Your task to perform on an android device: install app "Pandora - Music & Podcasts" Image 0: 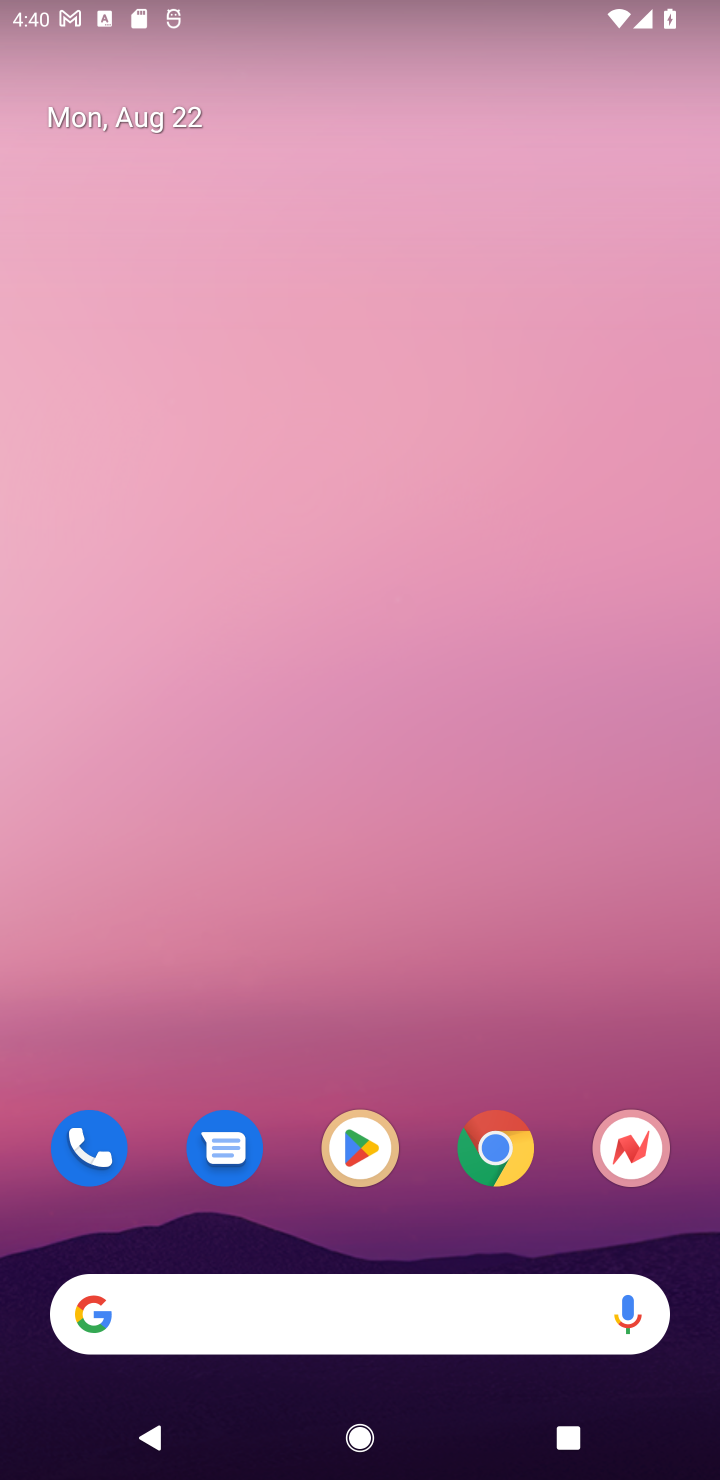
Step 0: click (358, 1150)
Your task to perform on an android device: install app "Pandora - Music & Podcasts" Image 1: 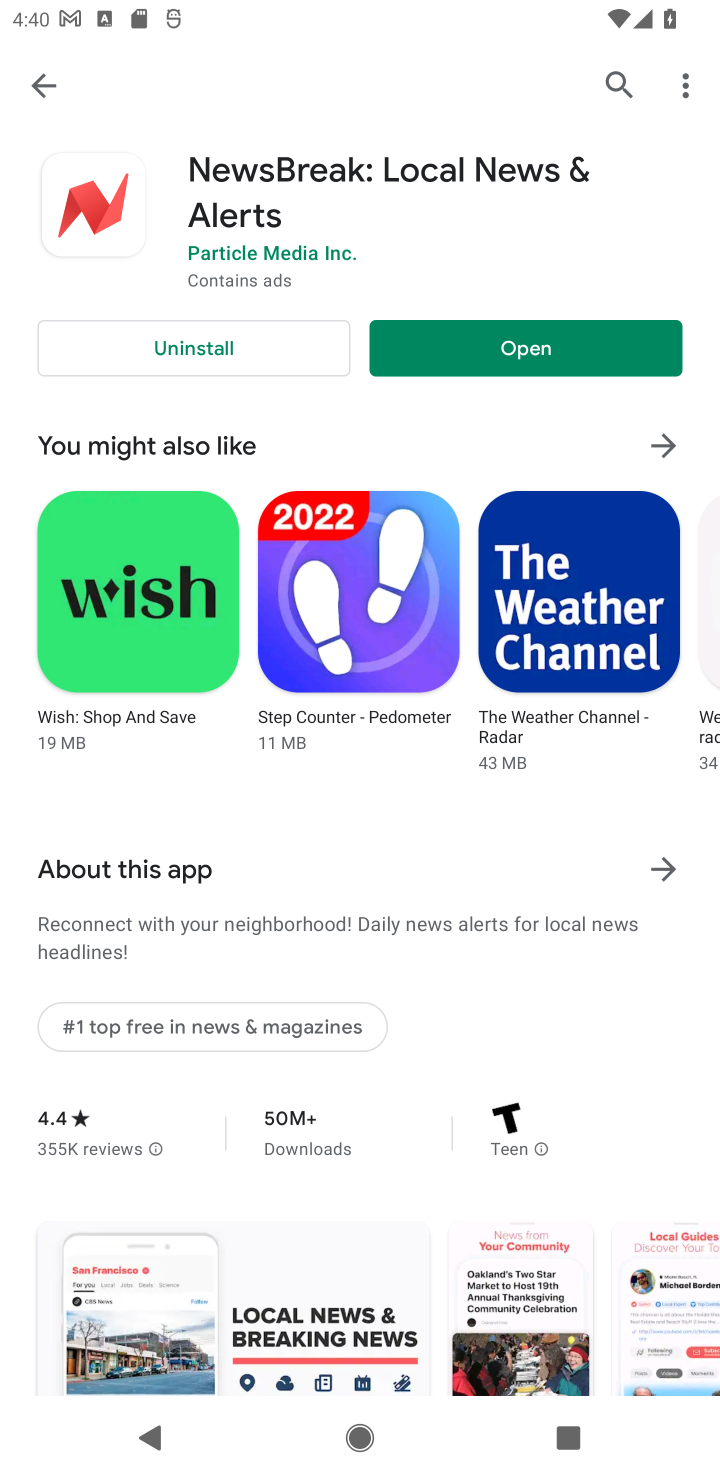
Step 1: click (616, 79)
Your task to perform on an android device: install app "Pandora - Music & Podcasts" Image 2: 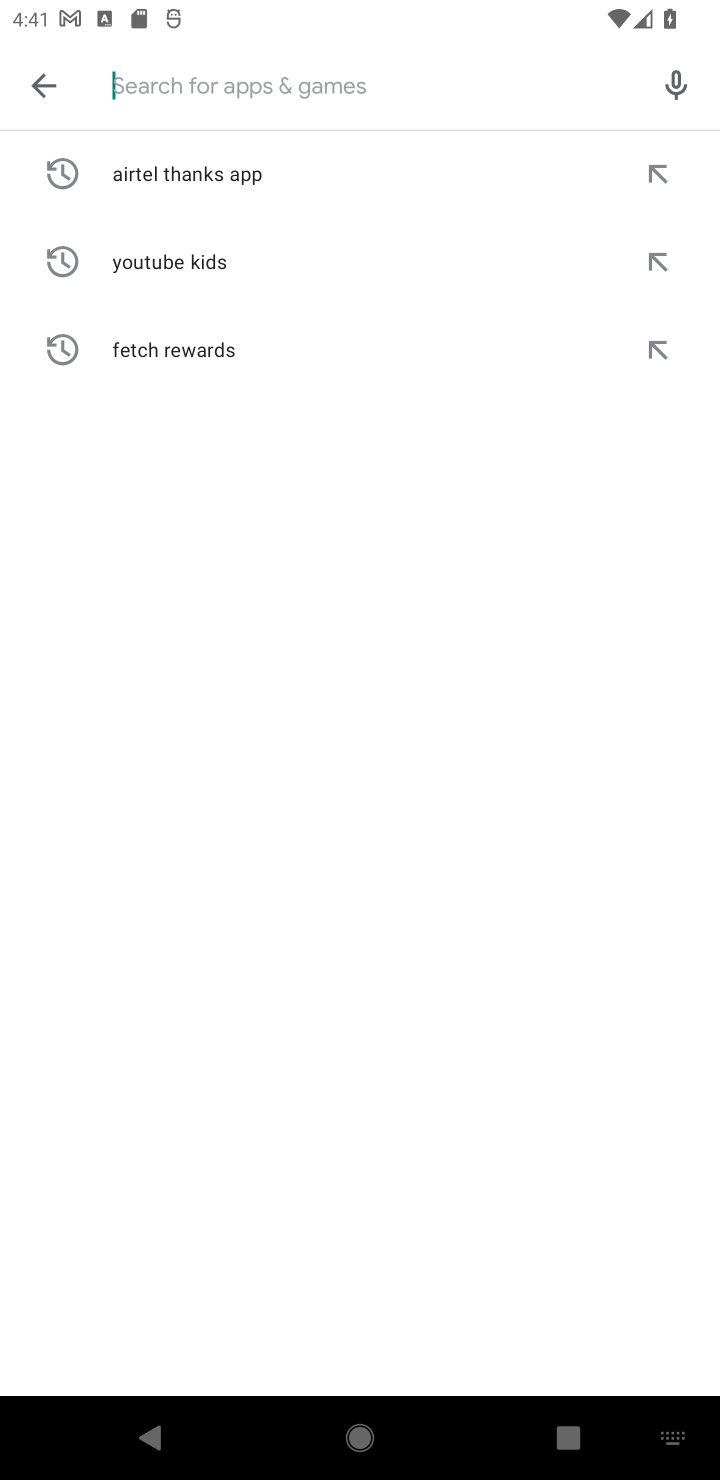
Step 2: type "Pandora - Music & Podcasts"
Your task to perform on an android device: install app "Pandora - Music & Podcasts" Image 3: 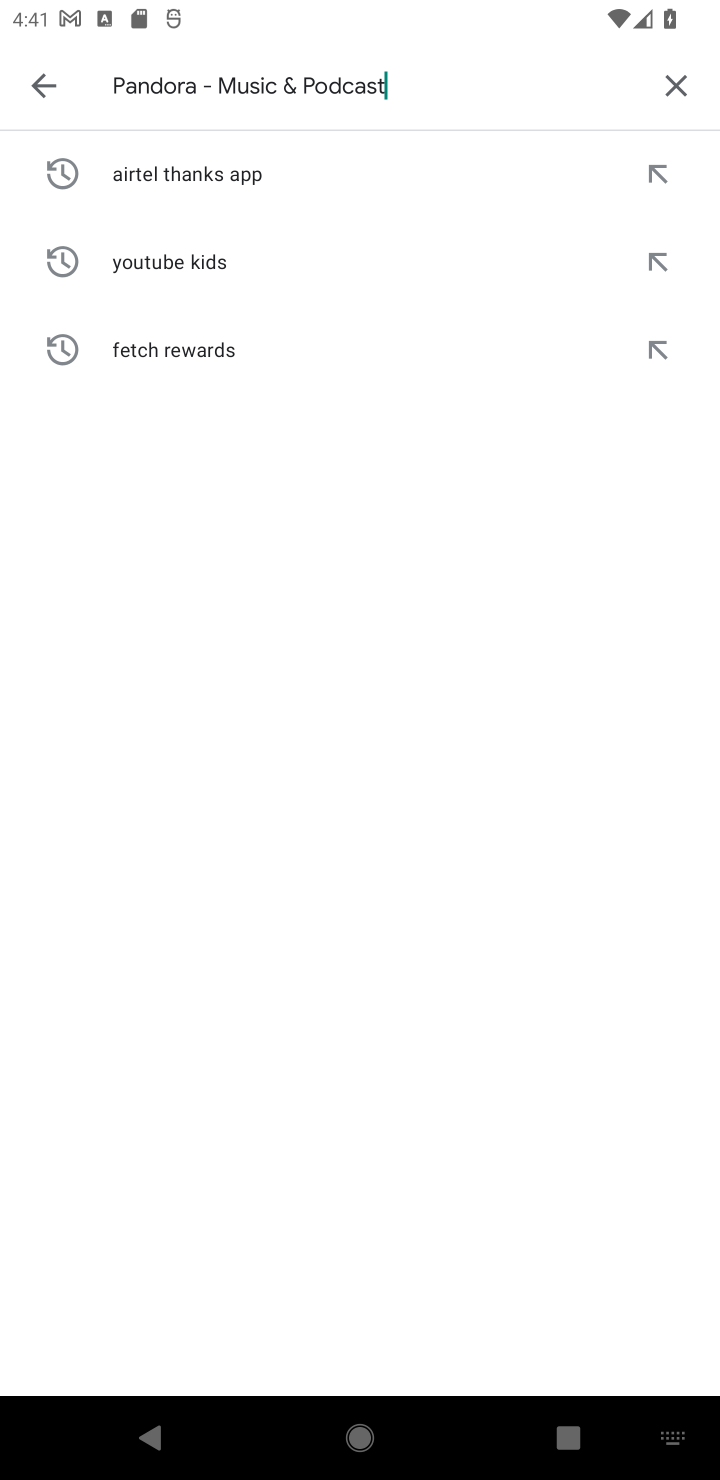
Step 3: type ""
Your task to perform on an android device: install app "Pandora - Music & Podcasts" Image 4: 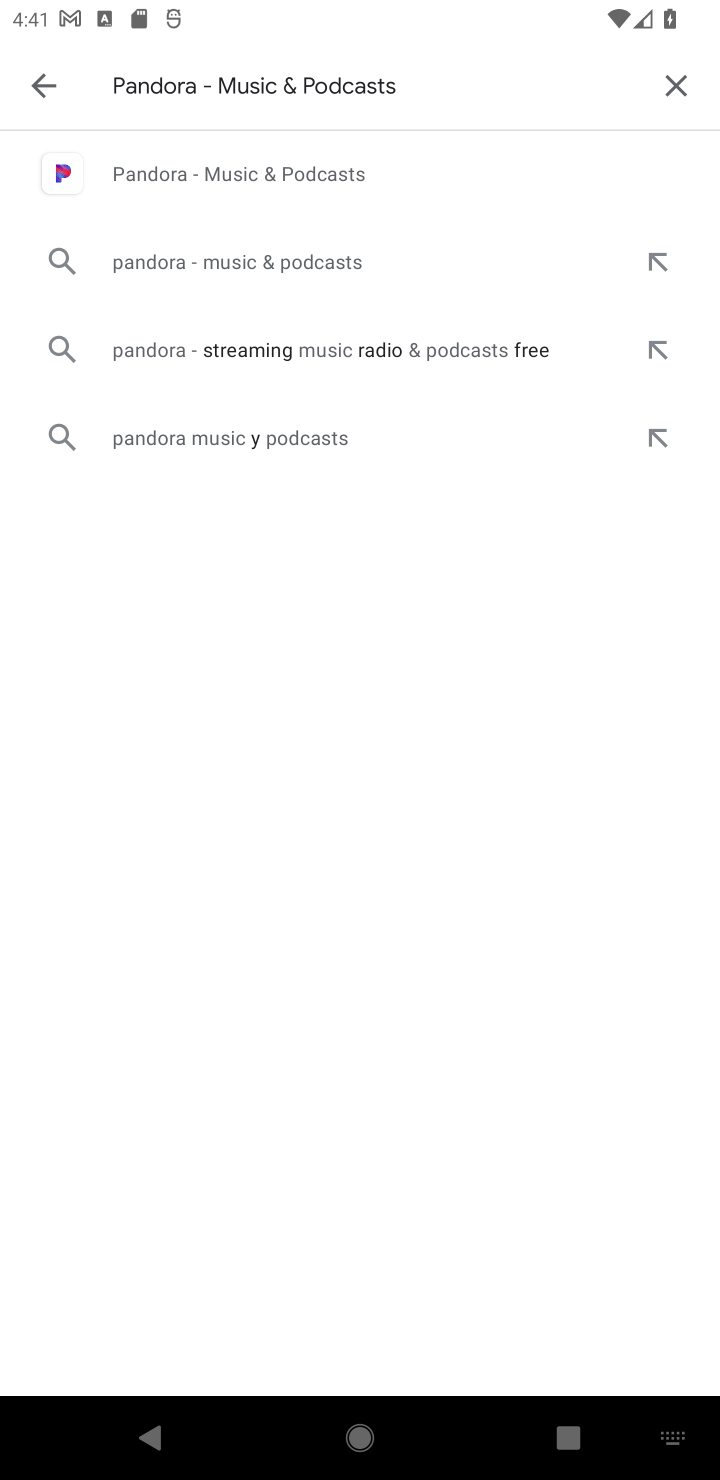
Step 4: click (232, 176)
Your task to perform on an android device: install app "Pandora - Music & Podcasts" Image 5: 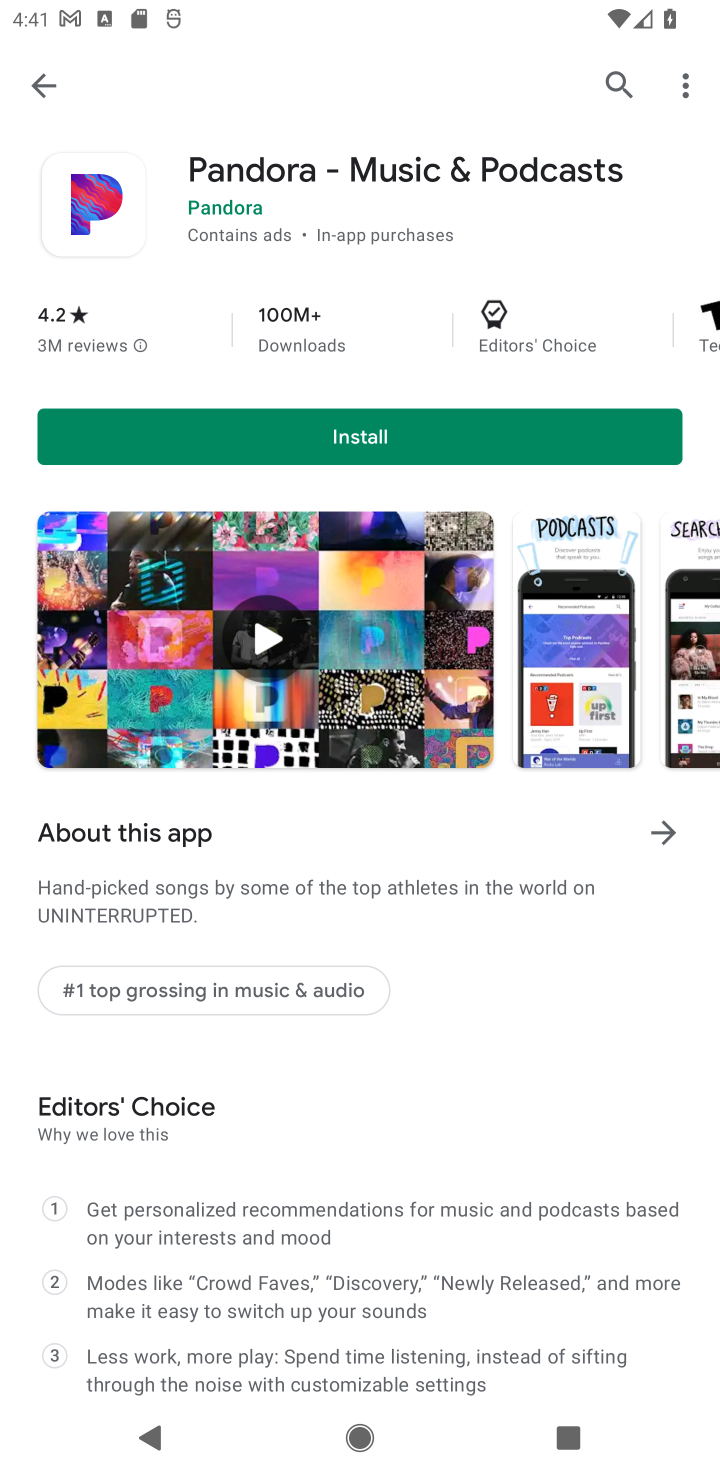
Step 5: click (375, 446)
Your task to perform on an android device: install app "Pandora - Music & Podcasts" Image 6: 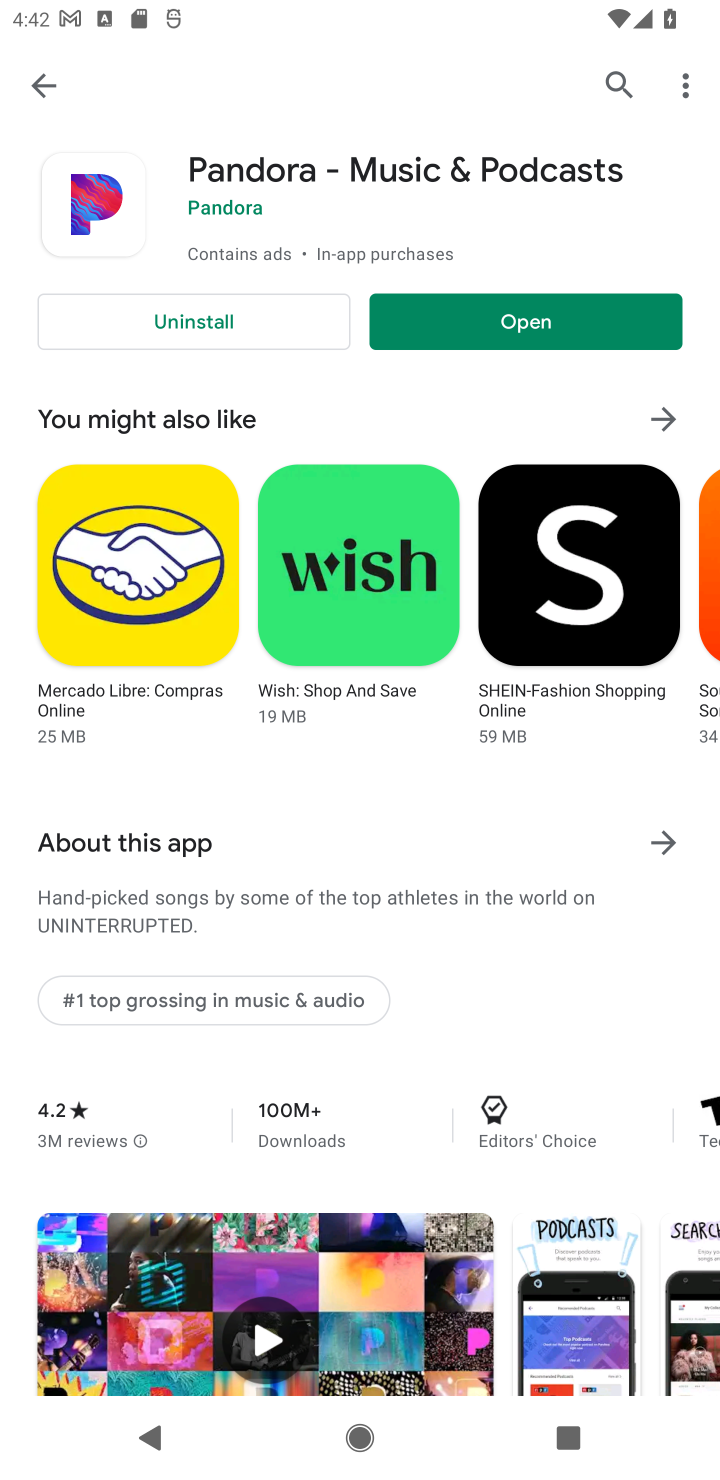
Step 6: task complete